Your task to perform on an android device: Check the news Image 0: 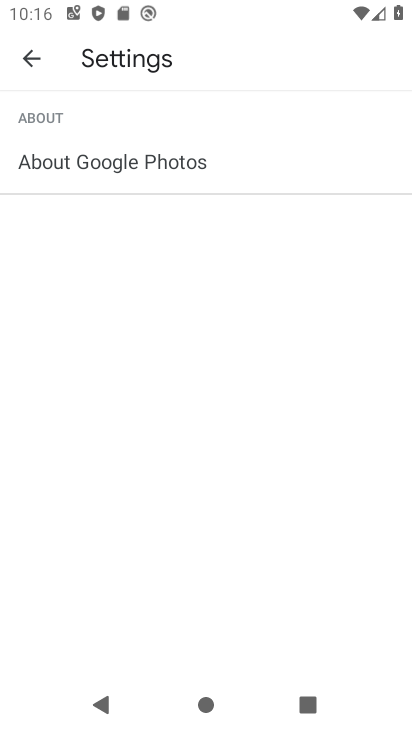
Step 0: press home button
Your task to perform on an android device: Check the news Image 1: 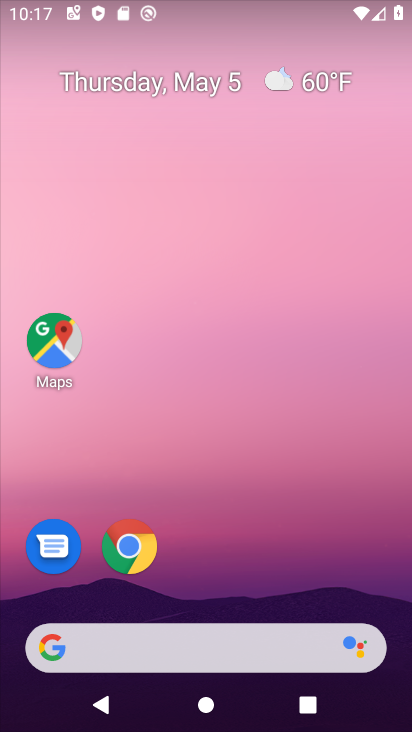
Step 1: drag from (289, 577) to (223, 162)
Your task to perform on an android device: Check the news Image 2: 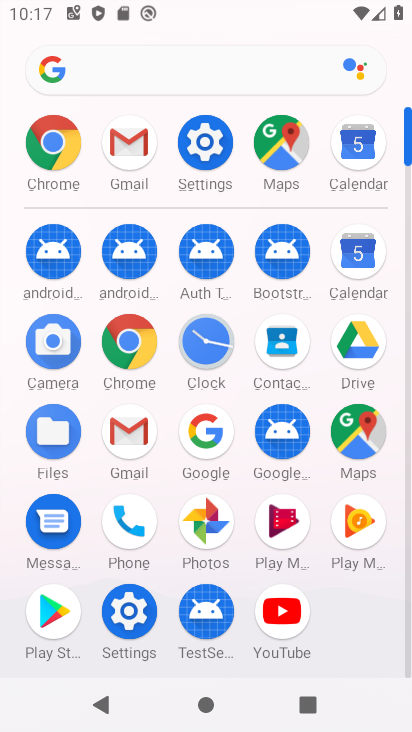
Step 2: click (137, 73)
Your task to perform on an android device: Check the news Image 3: 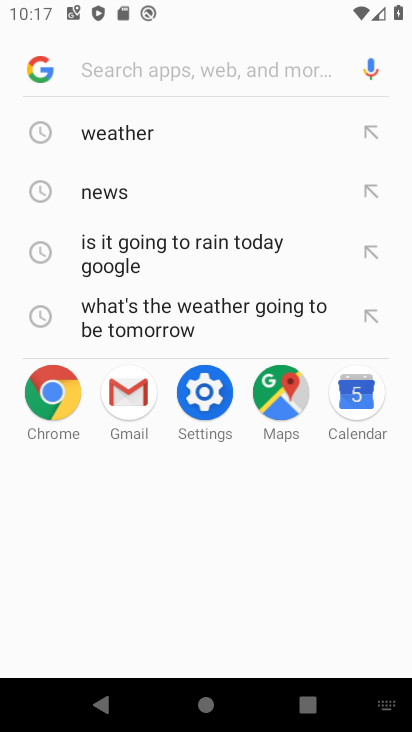
Step 3: type "news"
Your task to perform on an android device: Check the news Image 4: 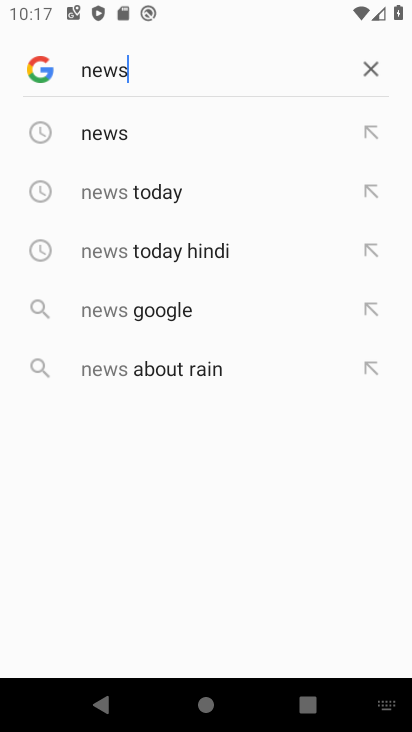
Step 4: click (100, 134)
Your task to perform on an android device: Check the news Image 5: 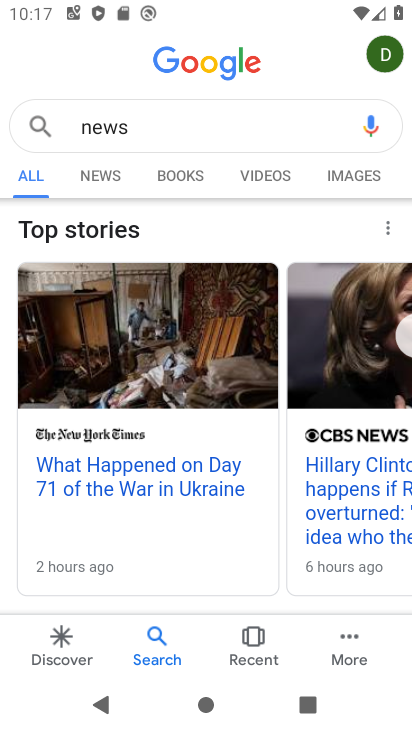
Step 5: click (110, 175)
Your task to perform on an android device: Check the news Image 6: 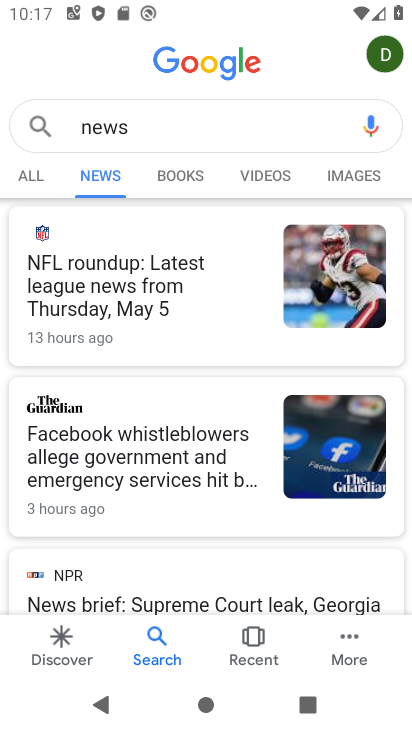
Step 6: task complete